Your task to perform on an android device: check battery use Image 0: 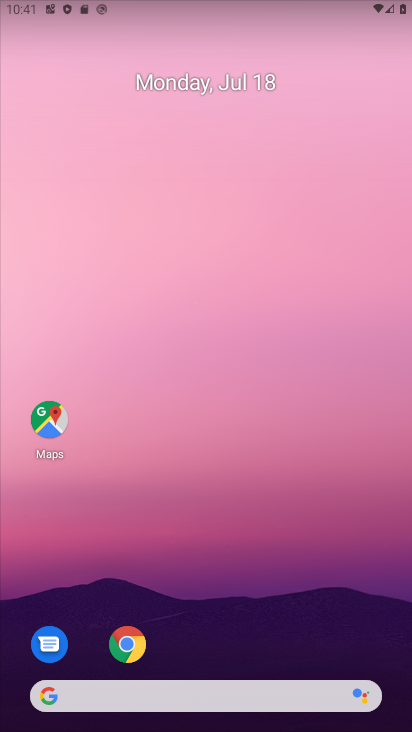
Step 0: drag from (243, 627) to (280, 112)
Your task to perform on an android device: check battery use Image 1: 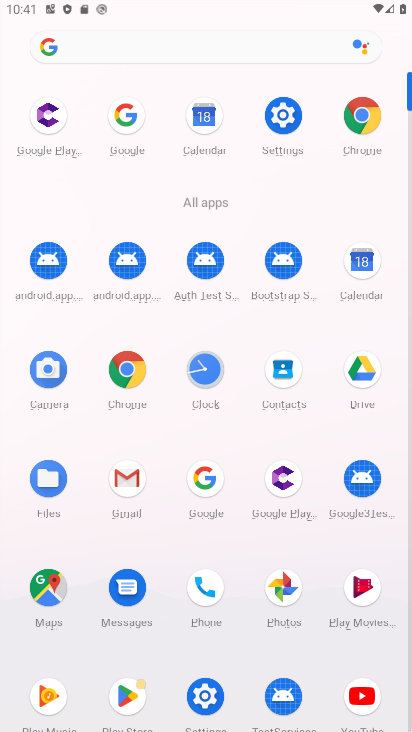
Step 1: click (283, 120)
Your task to perform on an android device: check battery use Image 2: 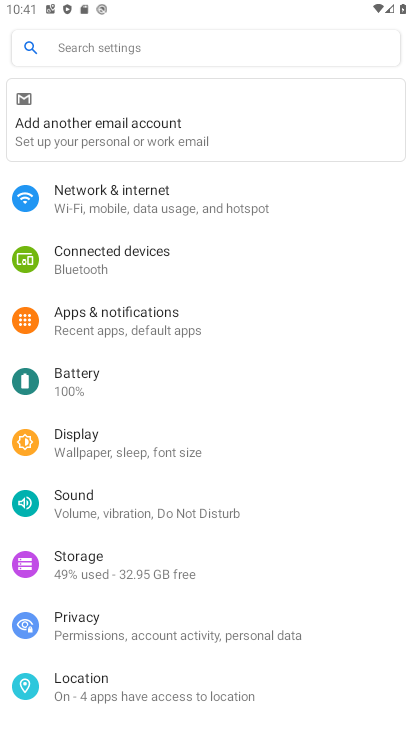
Step 2: click (102, 382)
Your task to perform on an android device: check battery use Image 3: 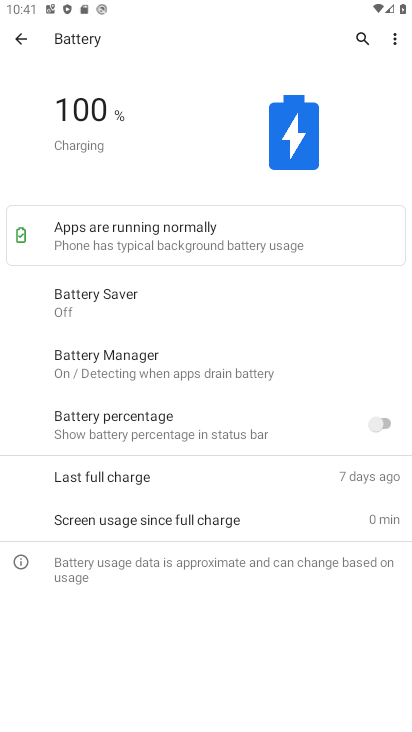
Step 3: click (395, 39)
Your task to perform on an android device: check battery use Image 4: 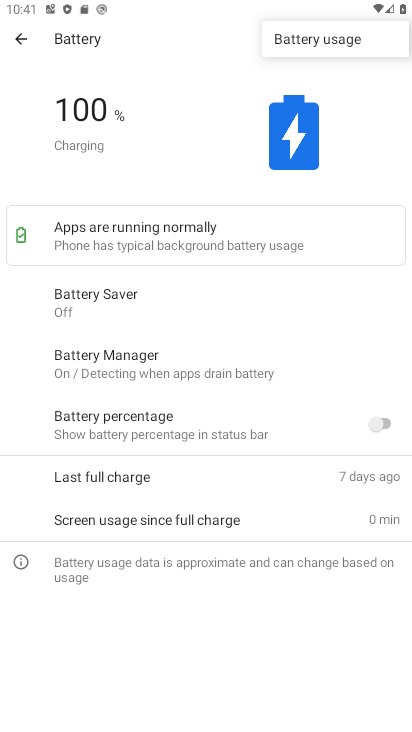
Step 4: click (325, 41)
Your task to perform on an android device: check battery use Image 5: 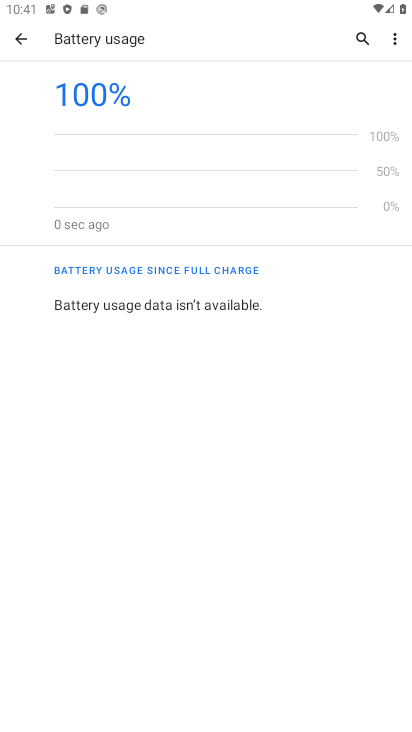
Step 5: task complete